Your task to perform on an android device: Show me popular videos on Youtube Image 0: 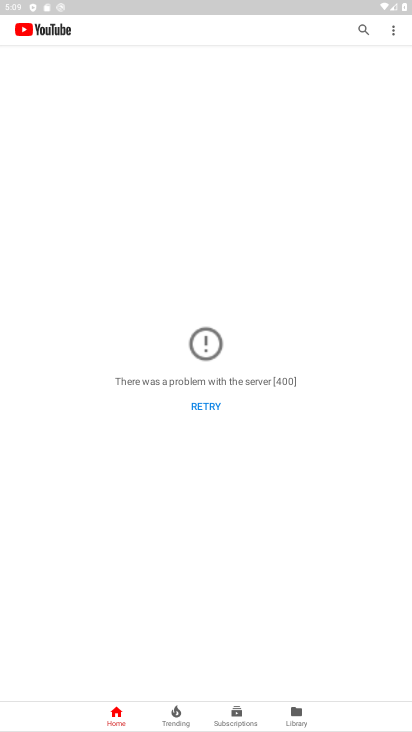
Step 0: press home button
Your task to perform on an android device: Show me popular videos on Youtube Image 1: 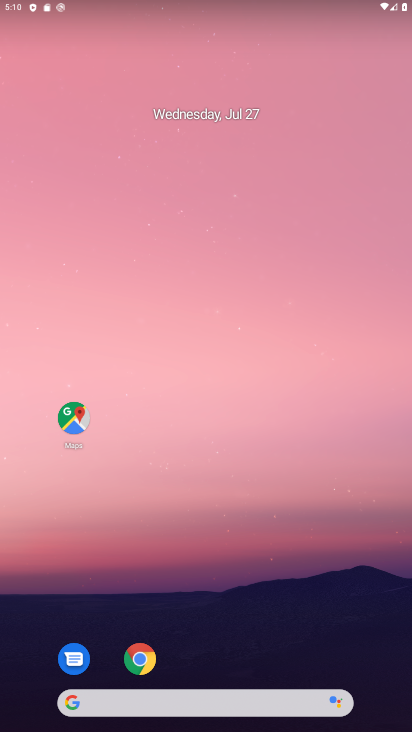
Step 1: drag from (246, 624) to (307, 110)
Your task to perform on an android device: Show me popular videos on Youtube Image 2: 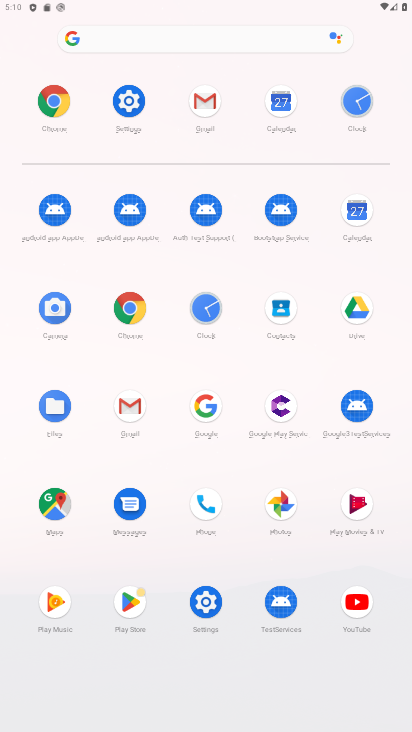
Step 2: click (349, 597)
Your task to perform on an android device: Show me popular videos on Youtube Image 3: 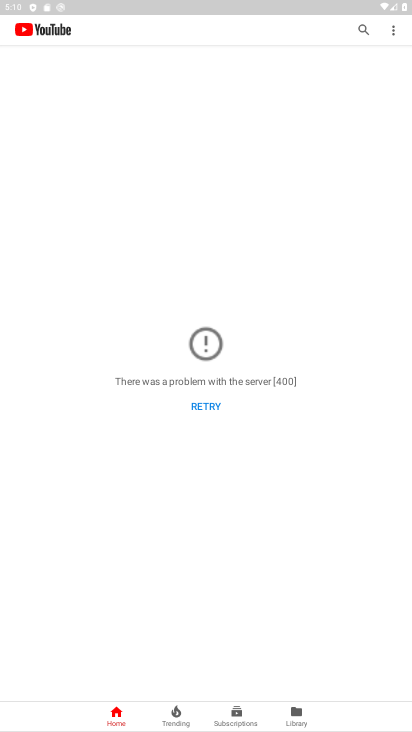
Step 3: task complete